Your task to perform on an android device: Open eBay Image 0: 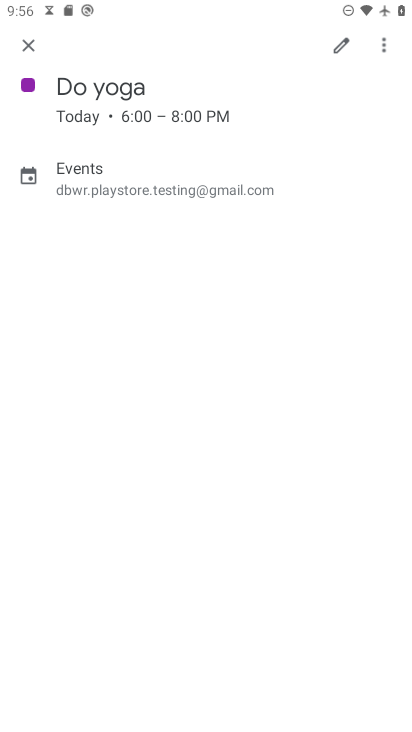
Step 0: press home button
Your task to perform on an android device: Open eBay Image 1: 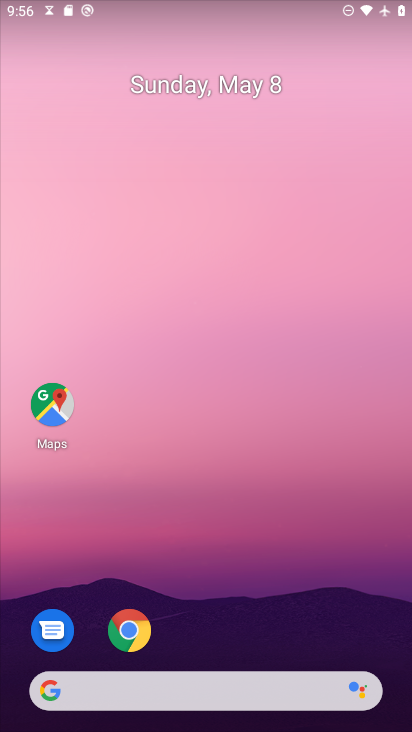
Step 1: click (133, 628)
Your task to perform on an android device: Open eBay Image 2: 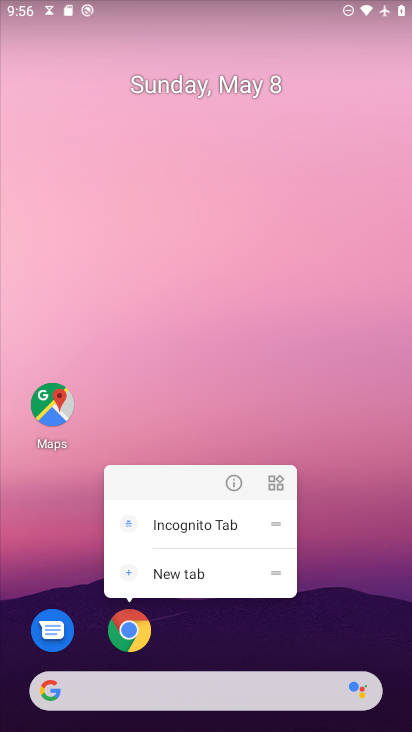
Step 2: click (128, 629)
Your task to perform on an android device: Open eBay Image 3: 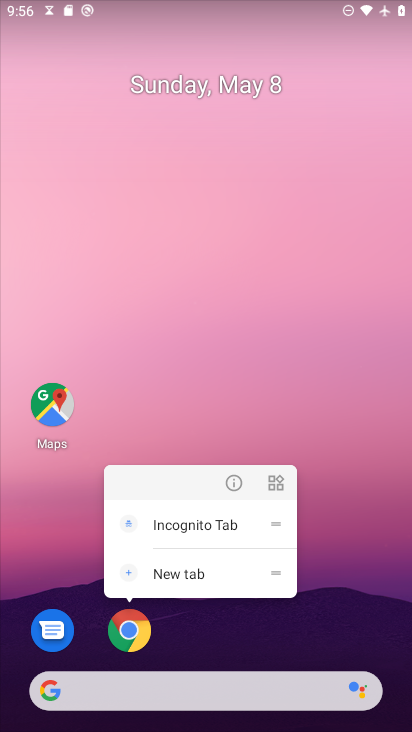
Step 3: click (114, 637)
Your task to perform on an android device: Open eBay Image 4: 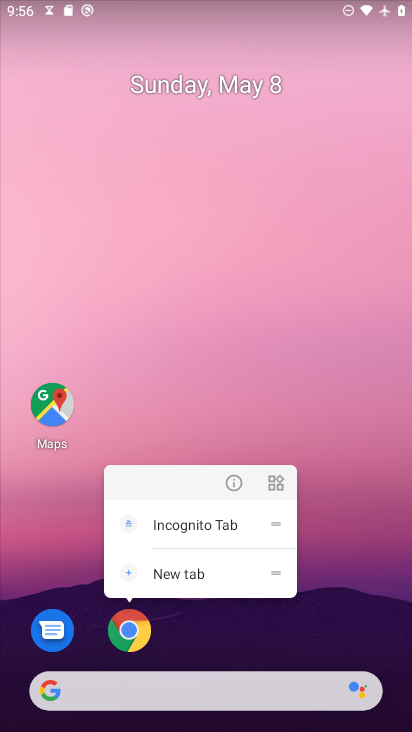
Step 4: click (147, 640)
Your task to perform on an android device: Open eBay Image 5: 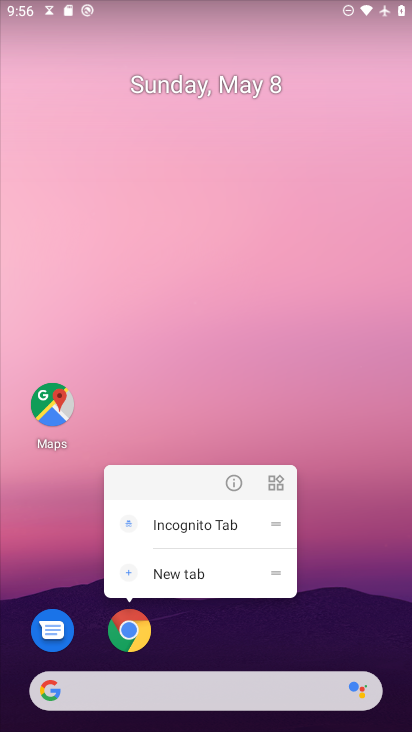
Step 5: click (126, 625)
Your task to perform on an android device: Open eBay Image 6: 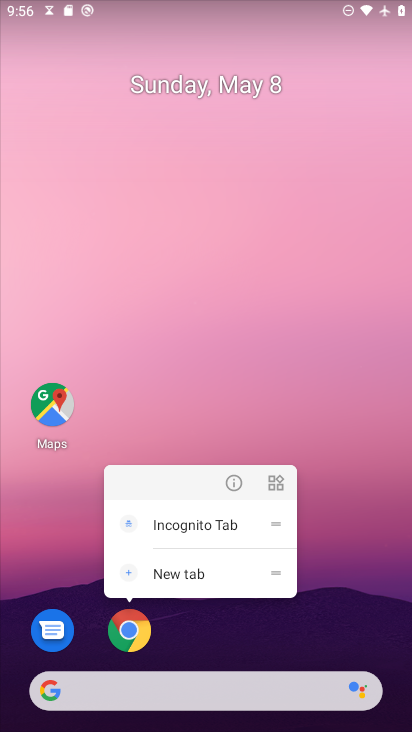
Step 6: click (122, 640)
Your task to perform on an android device: Open eBay Image 7: 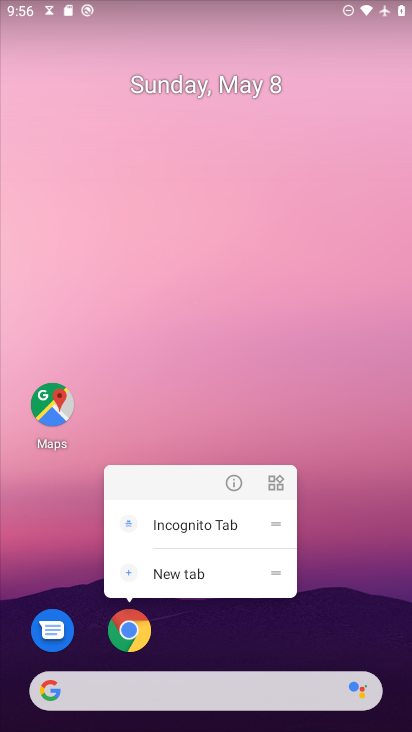
Step 7: click (127, 637)
Your task to perform on an android device: Open eBay Image 8: 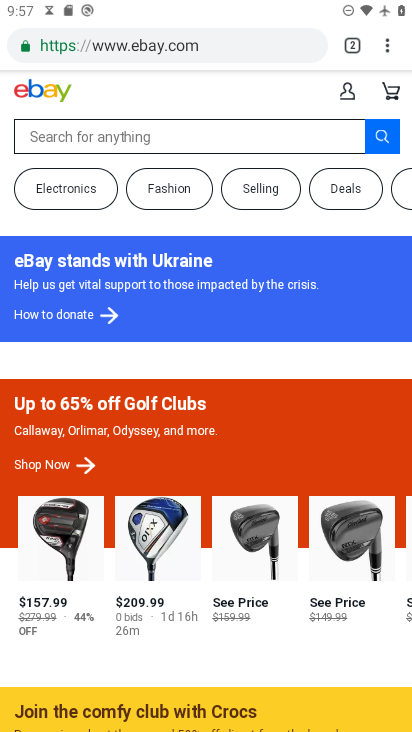
Step 8: task complete